Your task to perform on an android device: Open battery settings Image 0: 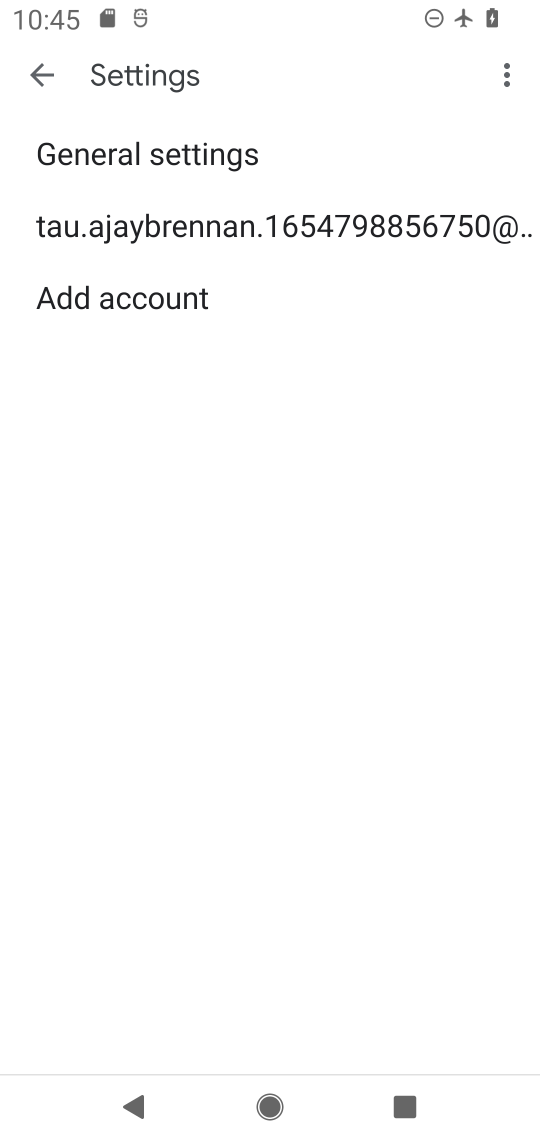
Step 0: press home button
Your task to perform on an android device: Open battery settings Image 1: 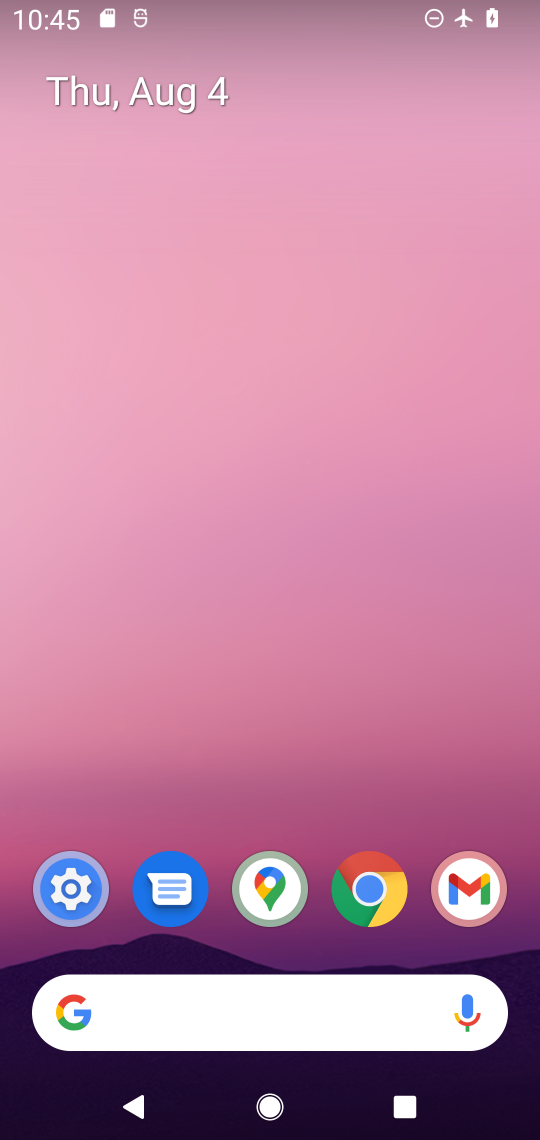
Step 1: drag from (281, 784) to (310, 234)
Your task to perform on an android device: Open battery settings Image 2: 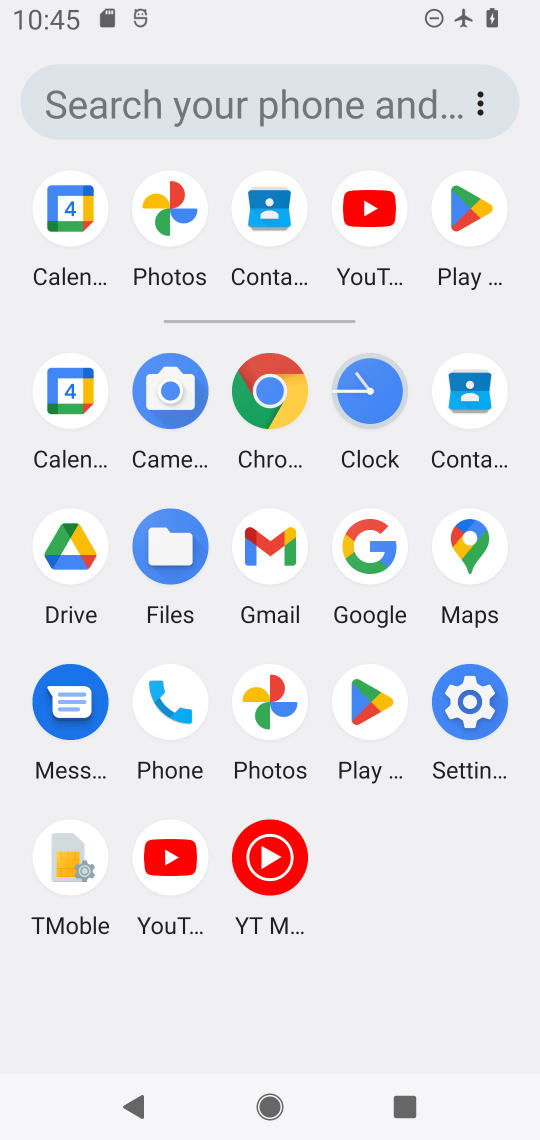
Step 2: click (469, 700)
Your task to perform on an android device: Open battery settings Image 3: 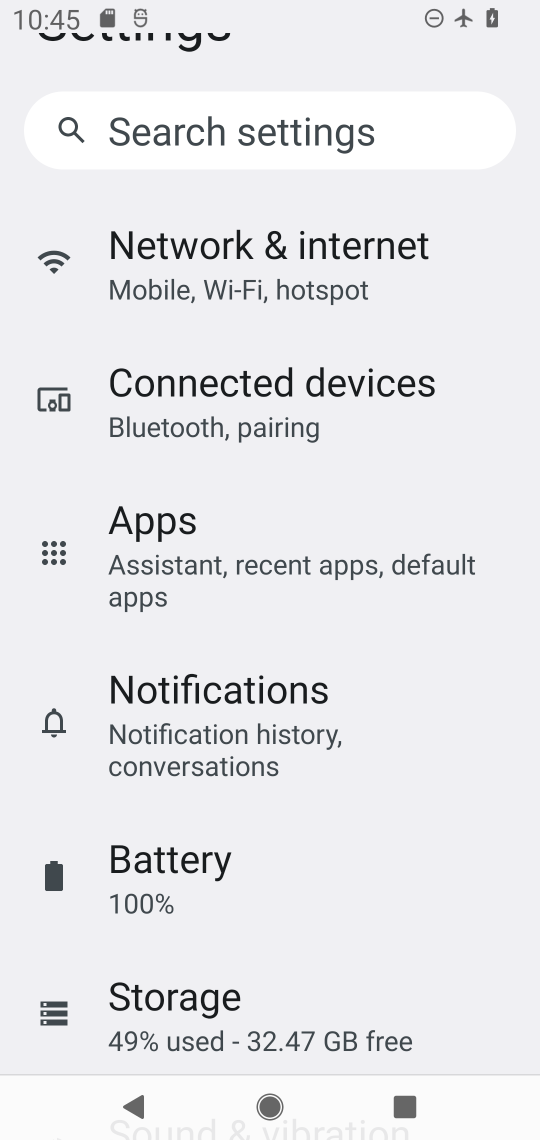
Step 3: drag from (480, 443) to (468, 686)
Your task to perform on an android device: Open battery settings Image 4: 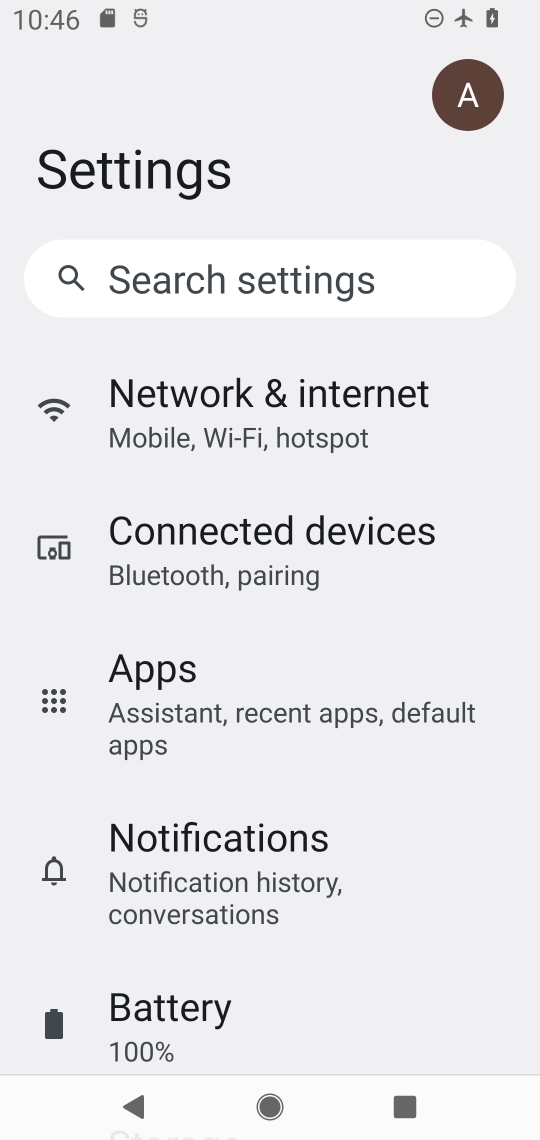
Step 4: drag from (461, 475) to (450, 725)
Your task to perform on an android device: Open battery settings Image 5: 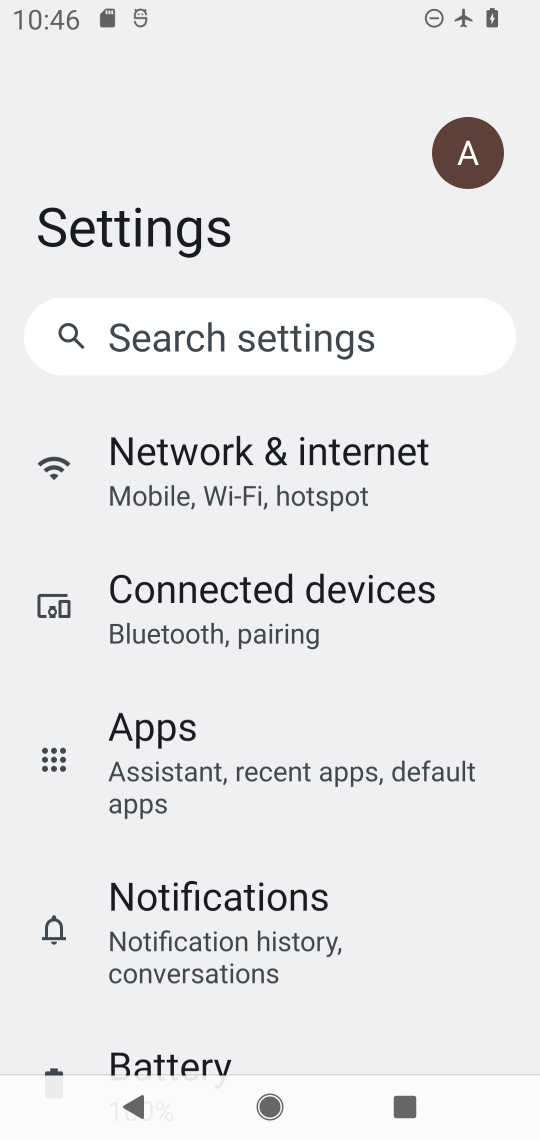
Step 5: drag from (452, 898) to (453, 683)
Your task to perform on an android device: Open battery settings Image 6: 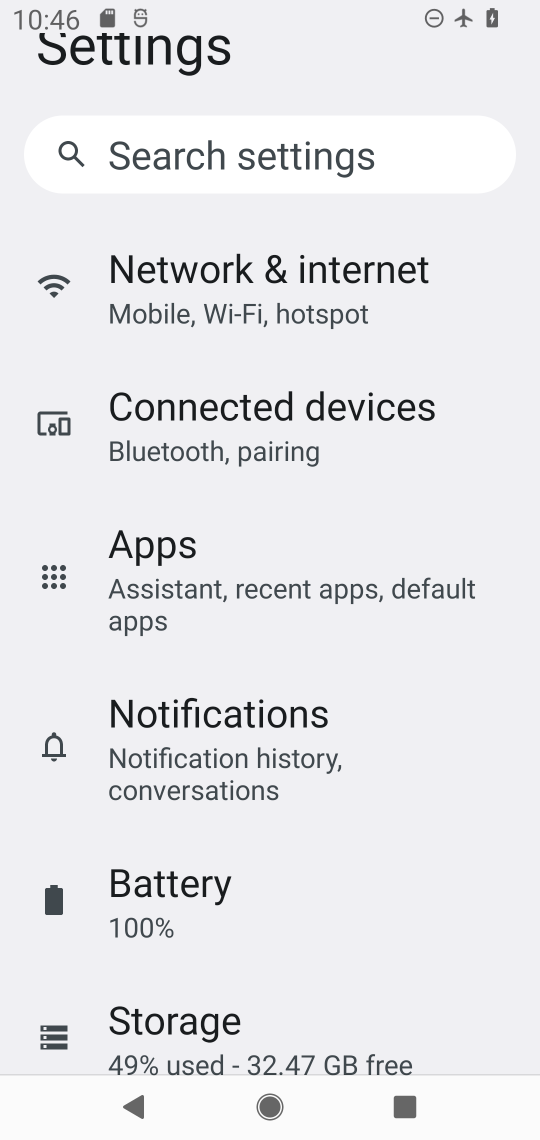
Step 6: drag from (444, 870) to (444, 700)
Your task to perform on an android device: Open battery settings Image 7: 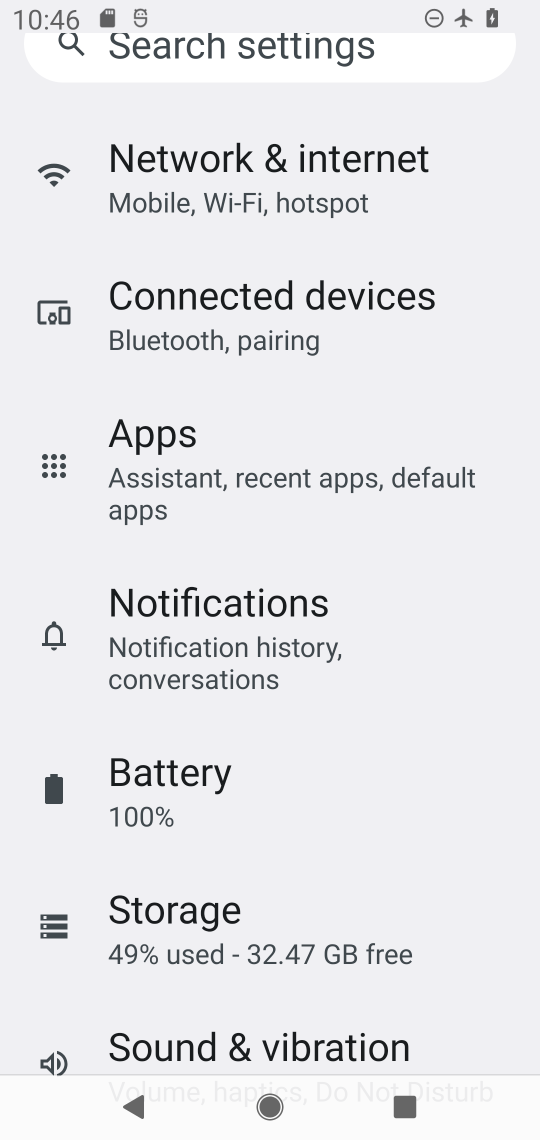
Step 7: drag from (447, 825) to (447, 639)
Your task to perform on an android device: Open battery settings Image 8: 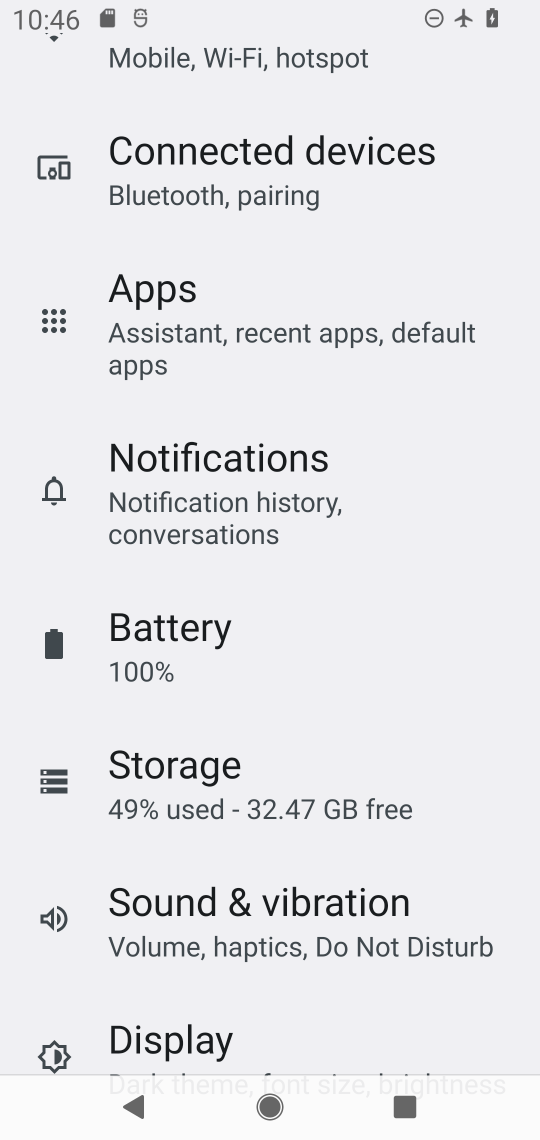
Step 8: drag from (439, 843) to (439, 619)
Your task to perform on an android device: Open battery settings Image 9: 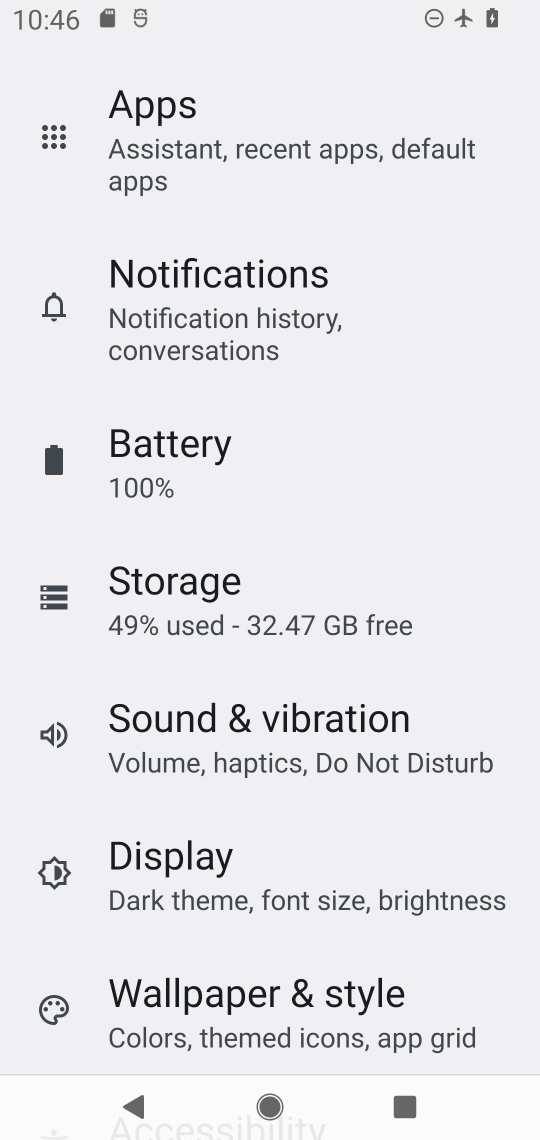
Step 9: drag from (441, 352) to (445, 554)
Your task to perform on an android device: Open battery settings Image 10: 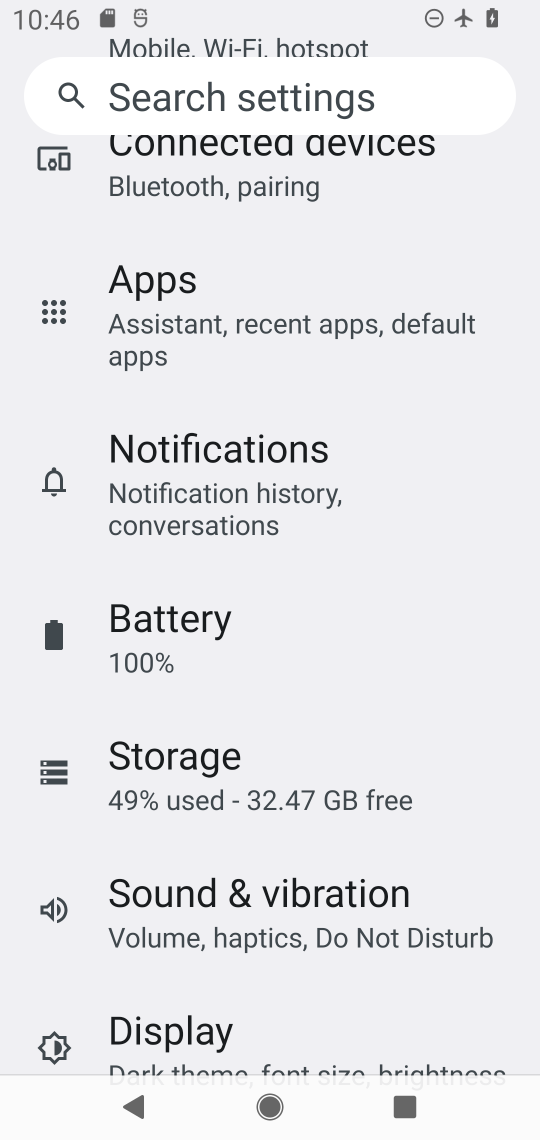
Step 10: drag from (440, 369) to (443, 555)
Your task to perform on an android device: Open battery settings Image 11: 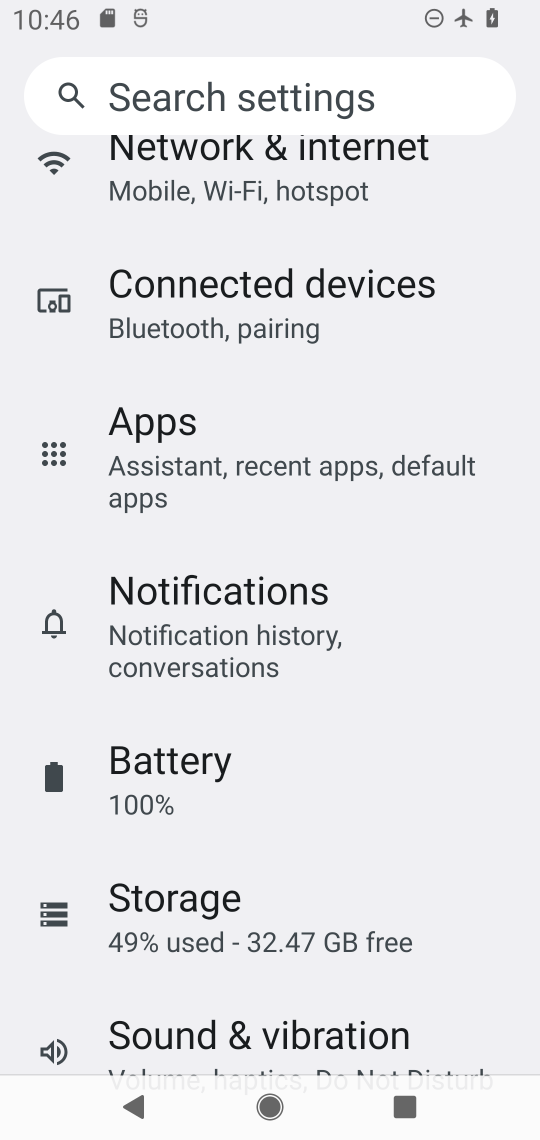
Step 11: drag from (466, 345) to (469, 601)
Your task to perform on an android device: Open battery settings Image 12: 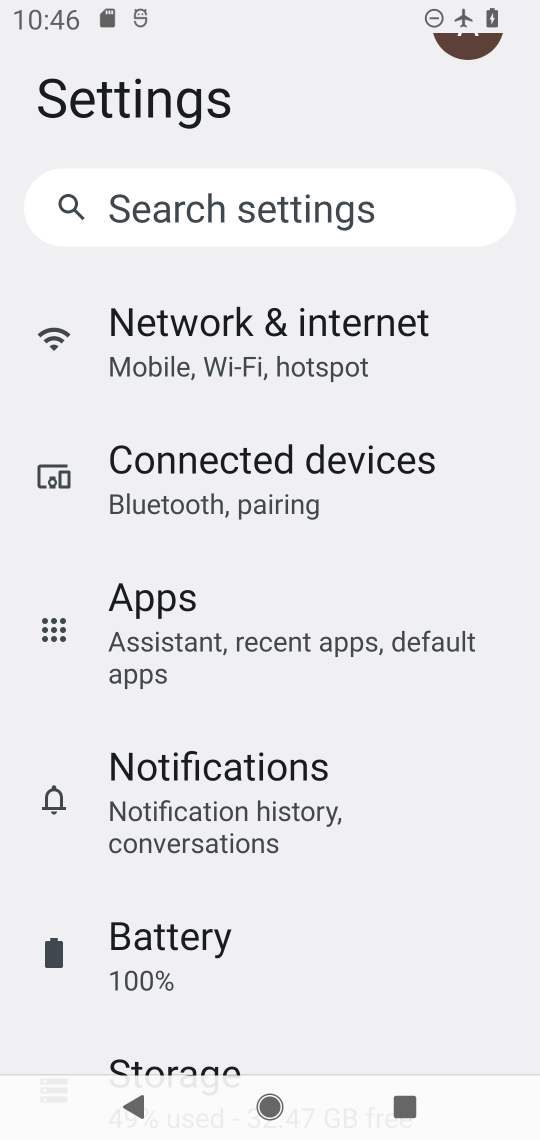
Step 12: drag from (477, 301) to (481, 538)
Your task to perform on an android device: Open battery settings Image 13: 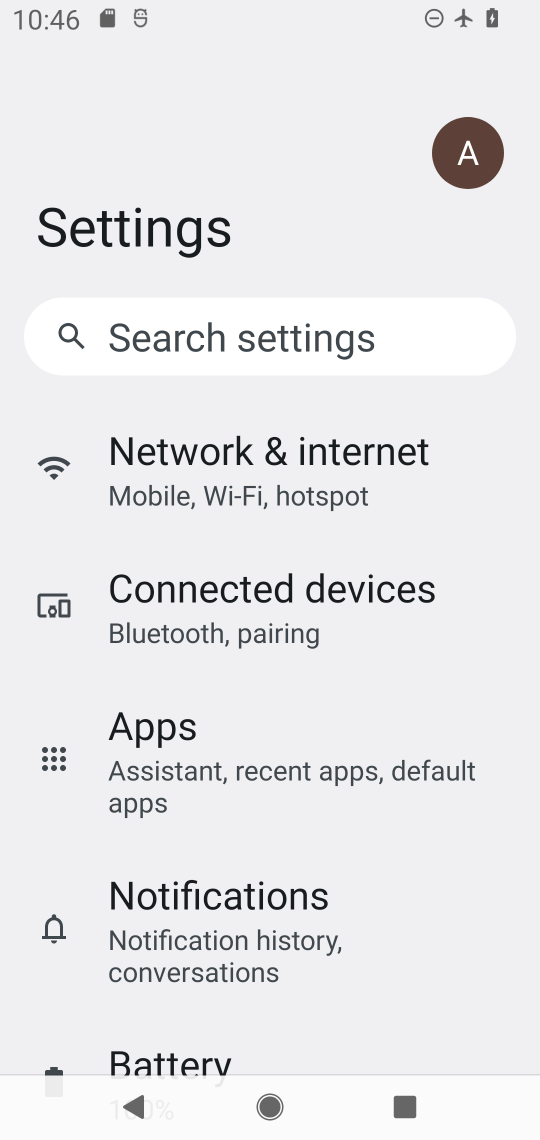
Step 13: drag from (420, 864) to (420, 704)
Your task to perform on an android device: Open battery settings Image 14: 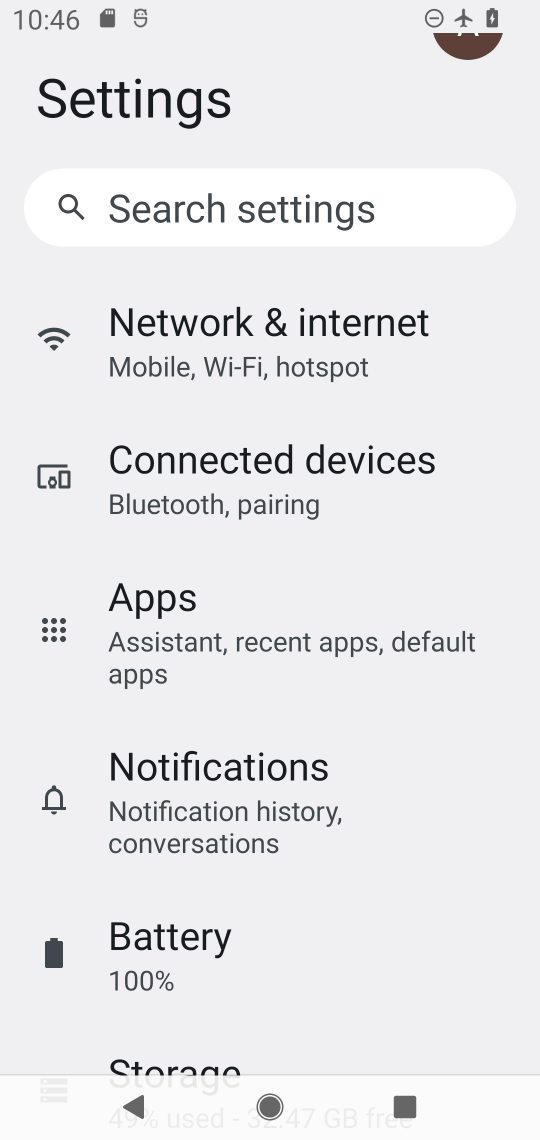
Step 14: drag from (423, 875) to (427, 695)
Your task to perform on an android device: Open battery settings Image 15: 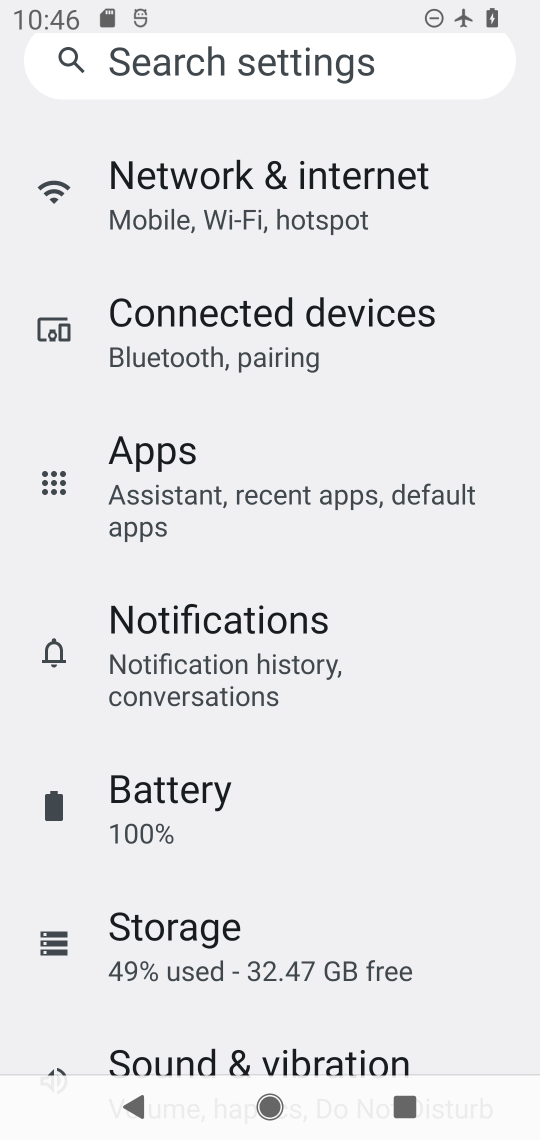
Step 15: drag from (427, 909) to (437, 761)
Your task to perform on an android device: Open battery settings Image 16: 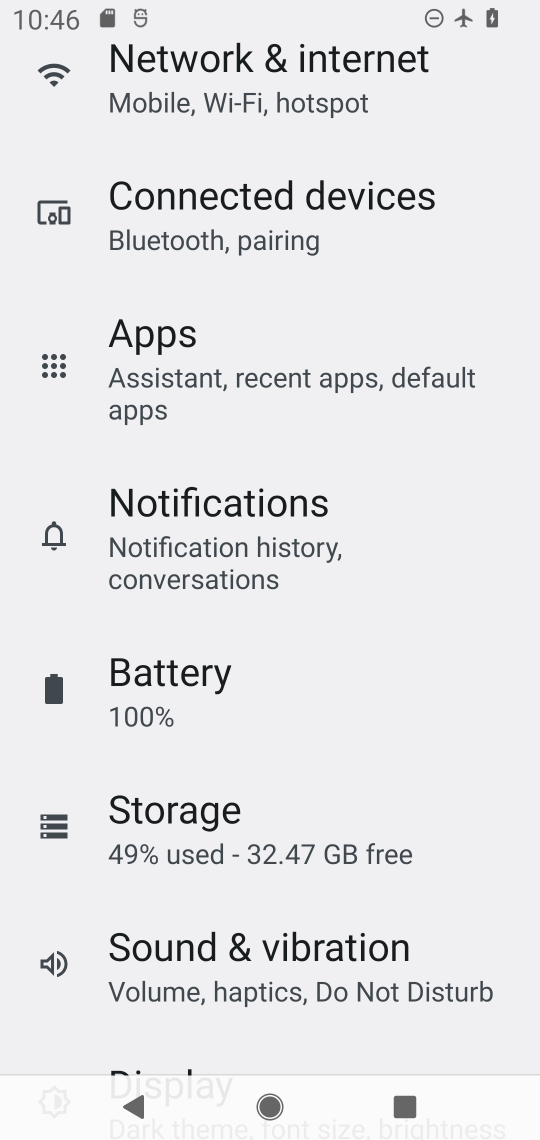
Step 16: click (263, 676)
Your task to perform on an android device: Open battery settings Image 17: 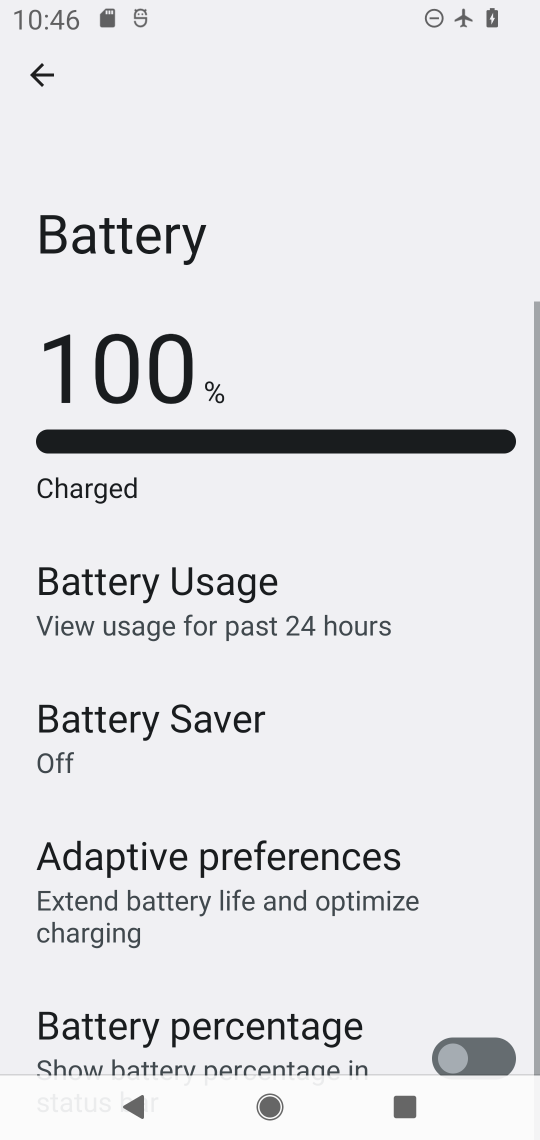
Step 17: task complete